Your task to perform on an android device: turn on showing notifications on the lock screen Image 0: 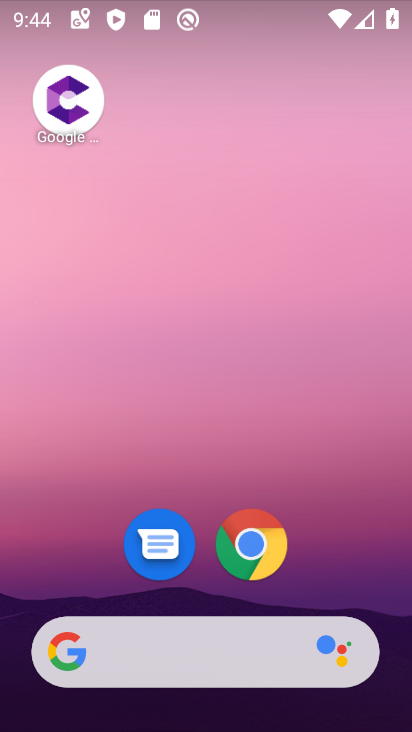
Step 0: drag from (358, 562) to (344, 1)
Your task to perform on an android device: turn on showing notifications on the lock screen Image 1: 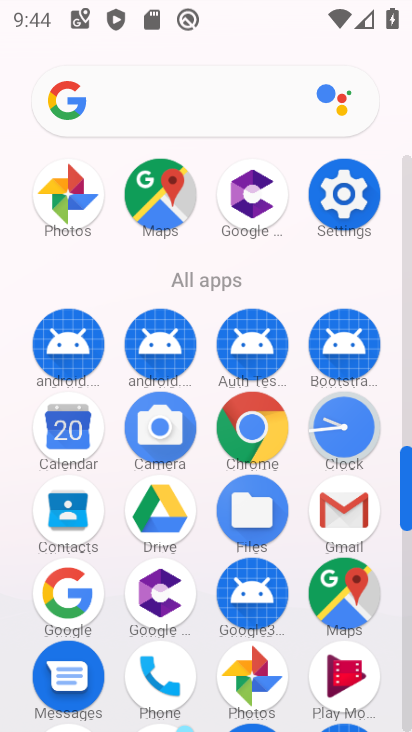
Step 1: click (351, 193)
Your task to perform on an android device: turn on showing notifications on the lock screen Image 2: 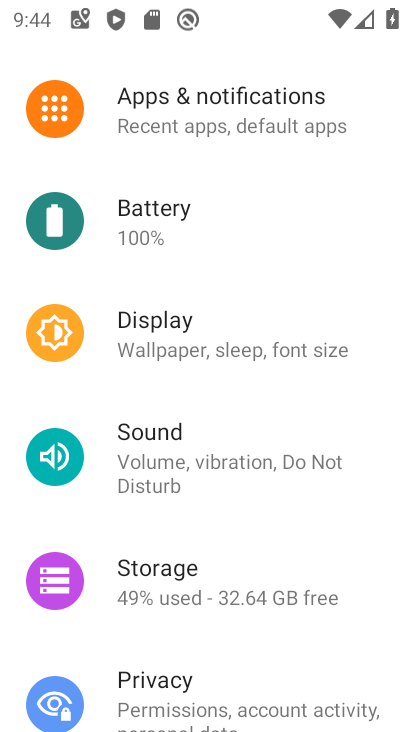
Step 2: click (202, 130)
Your task to perform on an android device: turn on showing notifications on the lock screen Image 3: 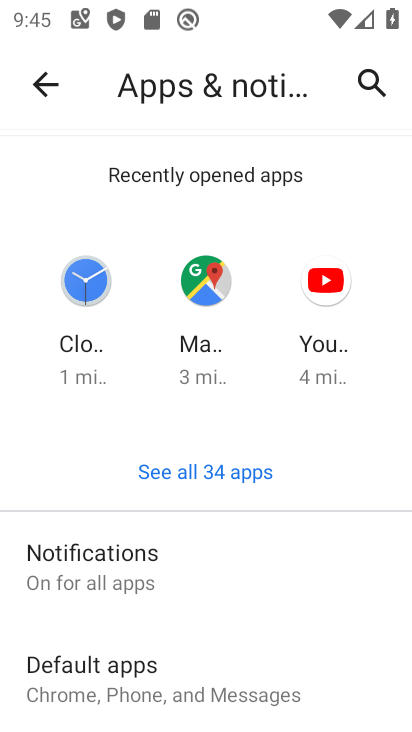
Step 3: click (80, 579)
Your task to perform on an android device: turn on showing notifications on the lock screen Image 4: 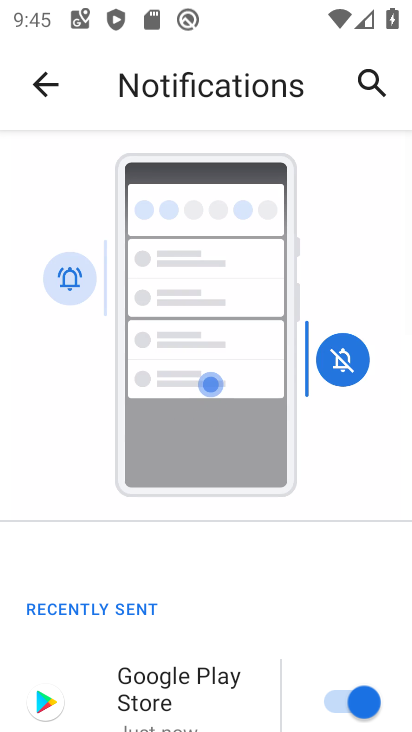
Step 4: drag from (190, 648) to (190, 135)
Your task to perform on an android device: turn on showing notifications on the lock screen Image 5: 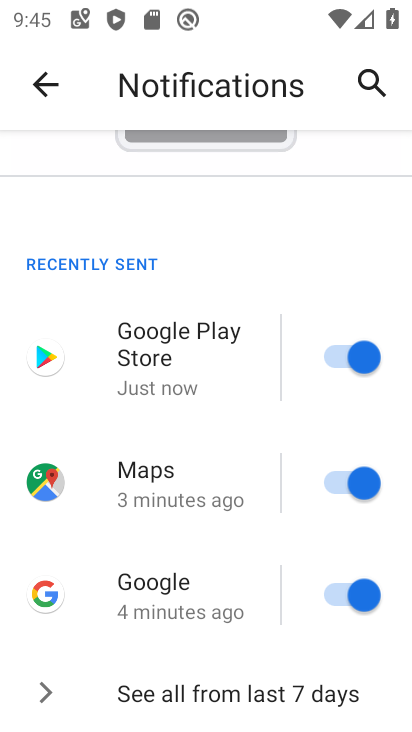
Step 5: drag from (147, 552) to (142, 111)
Your task to perform on an android device: turn on showing notifications on the lock screen Image 6: 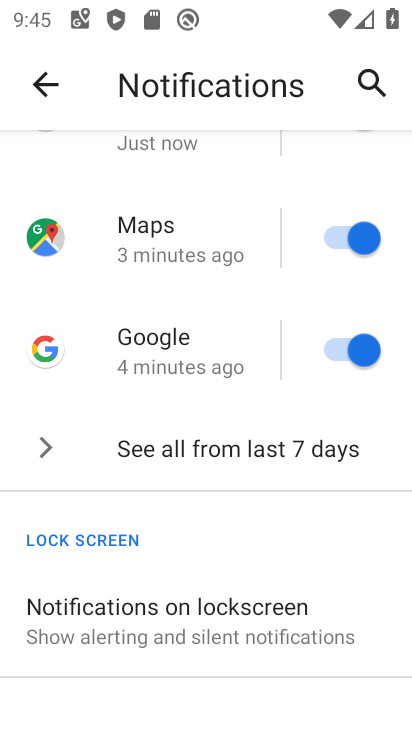
Step 6: drag from (171, 554) to (150, 252)
Your task to perform on an android device: turn on showing notifications on the lock screen Image 7: 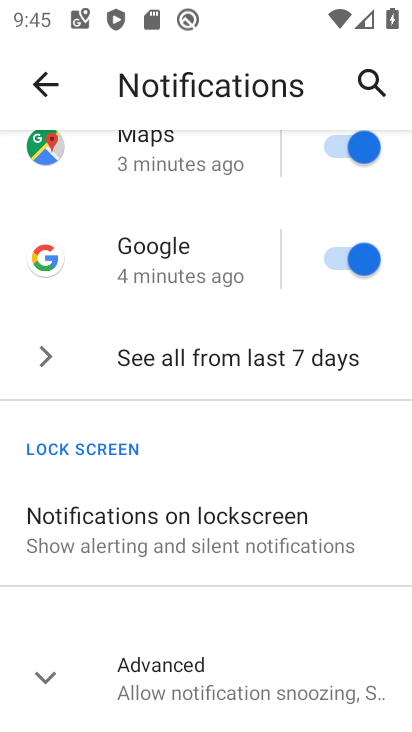
Step 7: click (151, 532)
Your task to perform on an android device: turn on showing notifications on the lock screen Image 8: 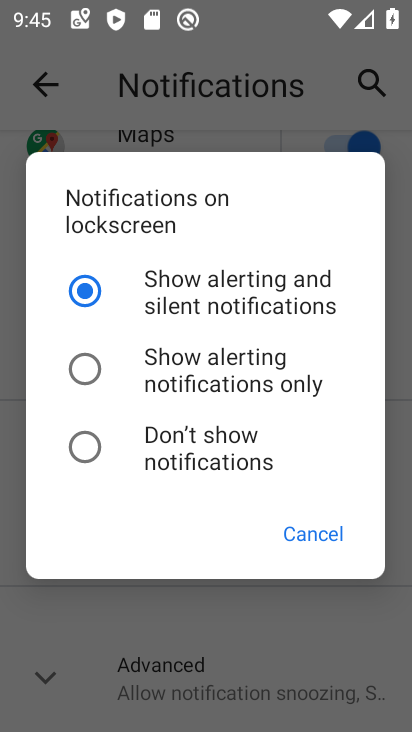
Step 8: task complete